Your task to perform on an android device: refresh tabs in the chrome app Image 0: 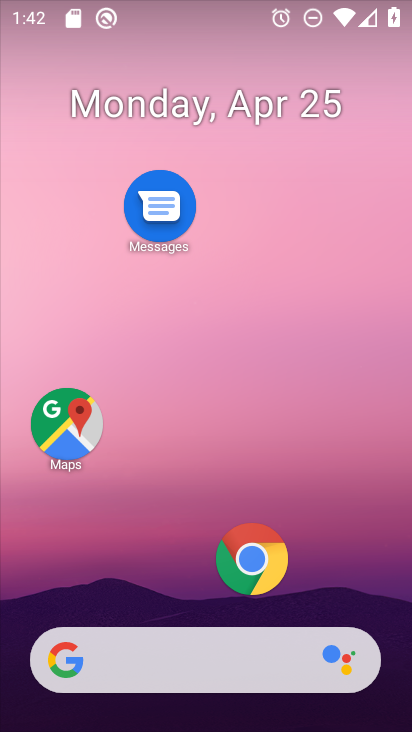
Step 0: click (257, 566)
Your task to perform on an android device: refresh tabs in the chrome app Image 1: 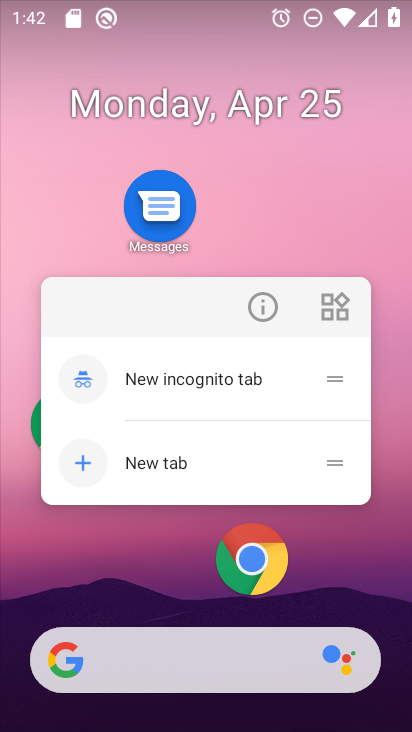
Step 1: click (269, 194)
Your task to perform on an android device: refresh tabs in the chrome app Image 2: 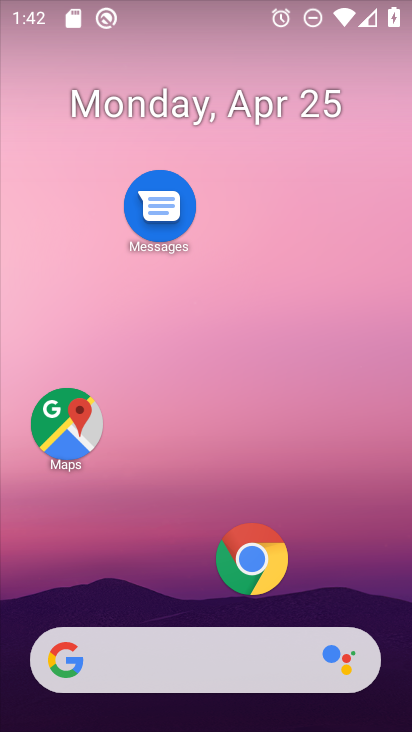
Step 2: click (252, 568)
Your task to perform on an android device: refresh tabs in the chrome app Image 3: 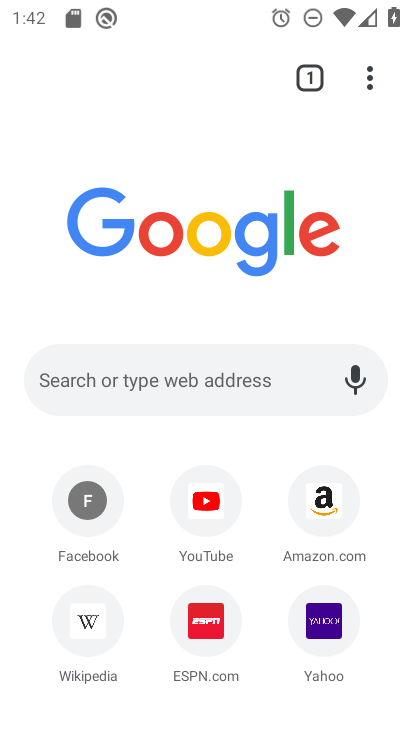
Step 3: click (363, 84)
Your task to perform on an android device: refresh tabs in the chrome app Image 4: 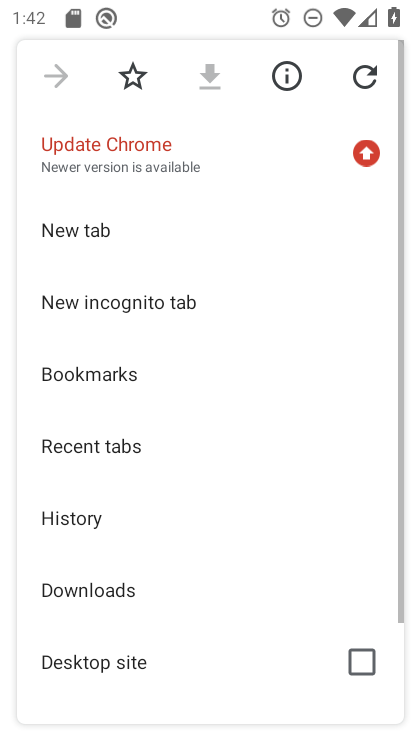
Step 4: click (363, 84)
Your task to perform on an android device: refresh tabs in the chrome app Image 5: 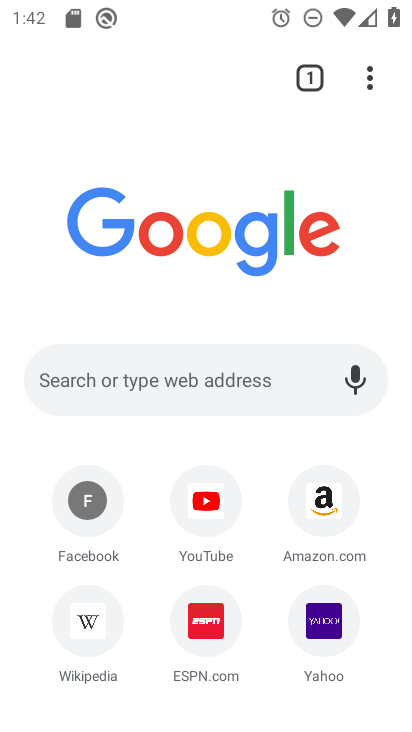
Step 5: task complete